Your task to perform on an android device: Go to eBay Image 0: 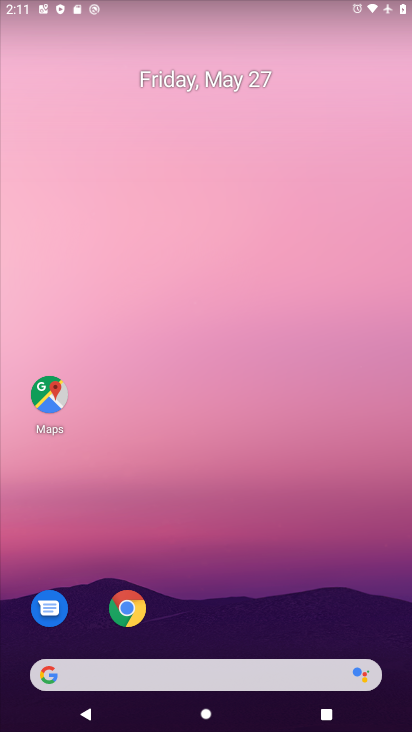
Step 0: press home button
Your task to perform on an android device: Go to eBay Image 1: 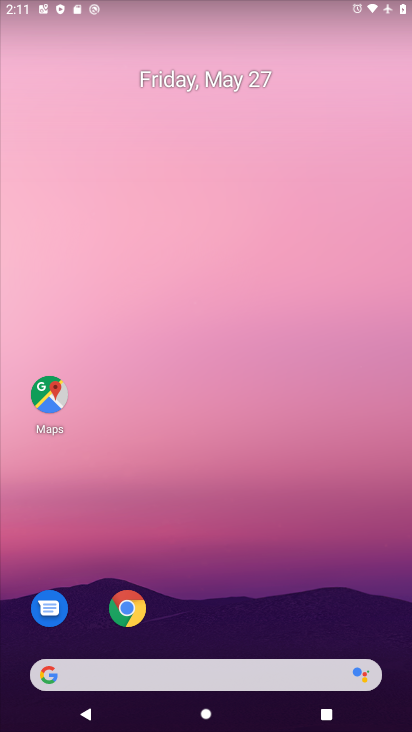
Step 1: click (126, 614)
Your task to perform on an android device: Go to eBay Image 2: 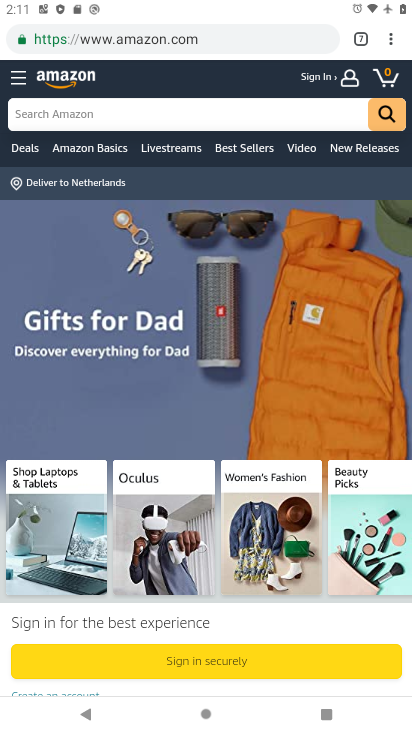
Step 2: drag from (391, 47) to (315, 89)
Your task to perform on an android device: Go to eBay Image 3: 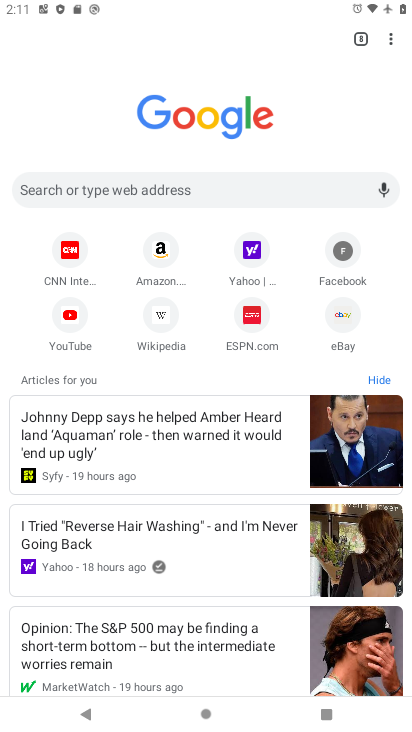
Step 3: click (338, 317)
Your task to perform on an android device: Go to eBay Image 4: 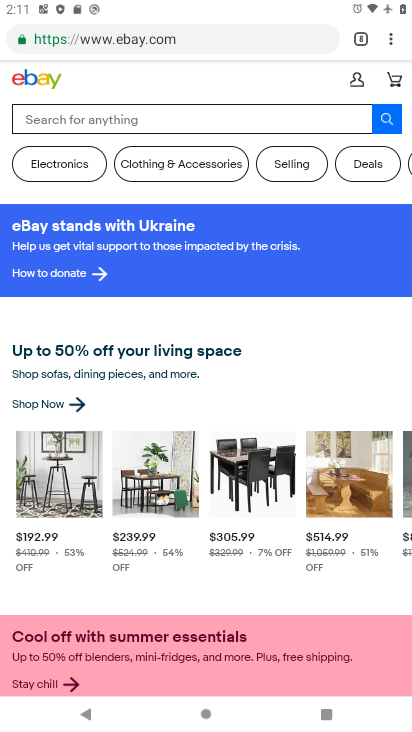
Step 4: task complete